Your task to perform on an android device: find which apps use the phone's location Image 0: 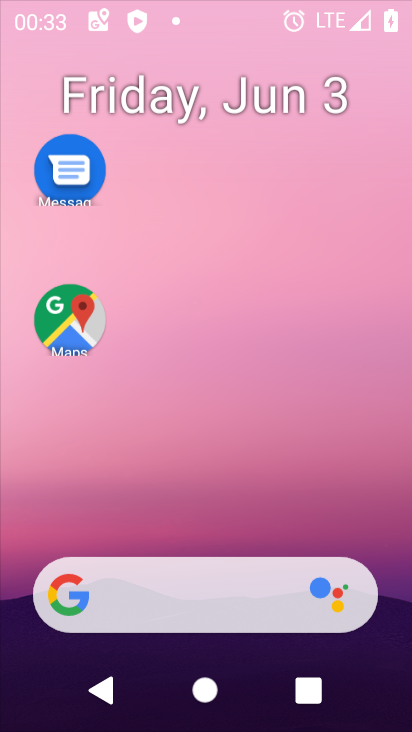
Step 0: press home button
Your task to perform on an android device: find which apps use the phone's location Image 1: 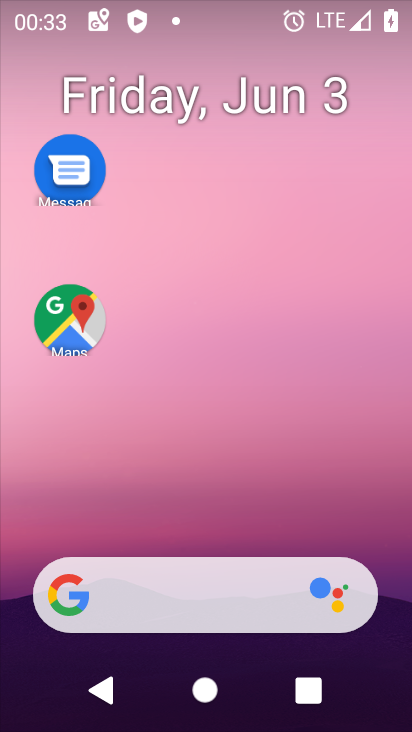
Step 1: drag from (231, 537) to (219, 1)
Your task to perform on an android device: find which apps use the phone's location Image 2: 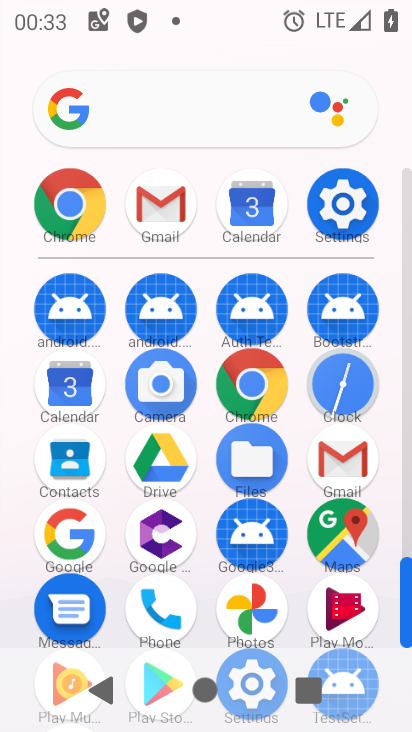
Step 2: click (189, 595)
Your task to perform on an android device: find which apps use the phone's location Image 3: 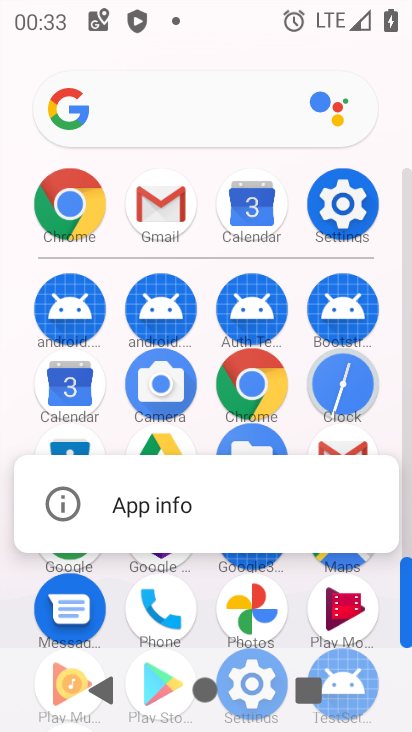
Step 3: click (180, 528)
Your task to perform on an android device: find which apps use the phone's location Image 4: 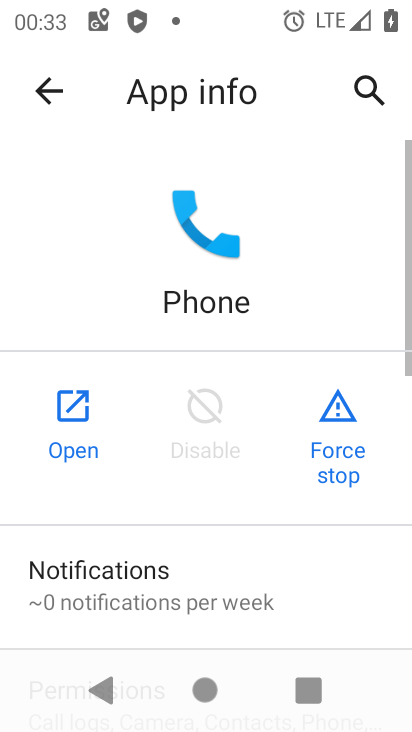
Step 4: drag from (311, 594) to (298, 135)
Your task to perform on an android device: find which apps use the phone's location Image 5: 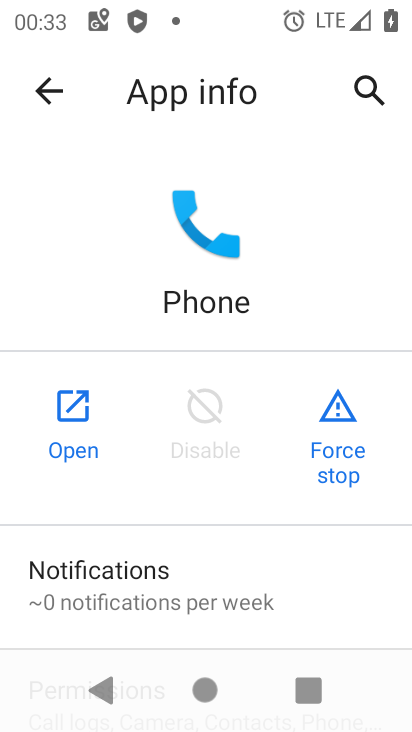
Step 5: drag from (178, 554) to (184, 238)
Your task to perform on an android device: find which apps use the phone's location Image 6: 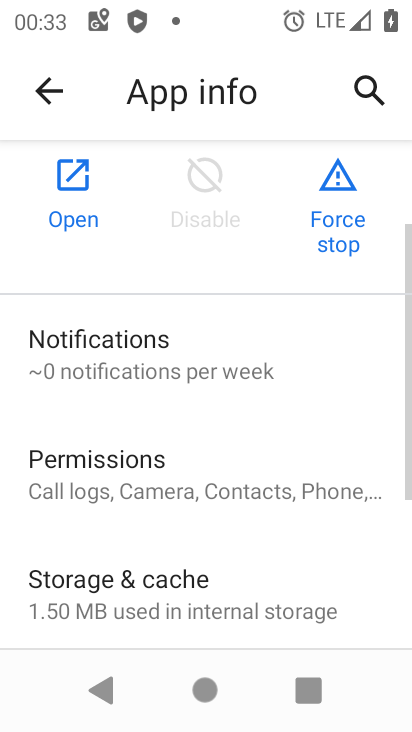
Step 6: click (176, 470)
Your task to perform on an android device: find which apps use the phone's location Image 7: 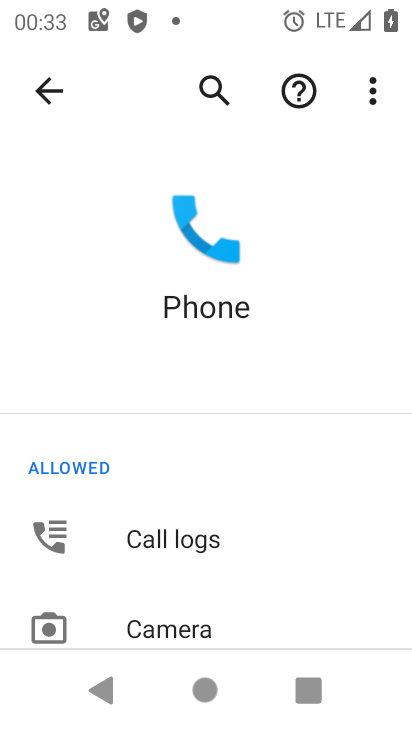
Step 7: click (237, 164)
Your task to perform on an android device: find which apps use the phone's location Image 8: 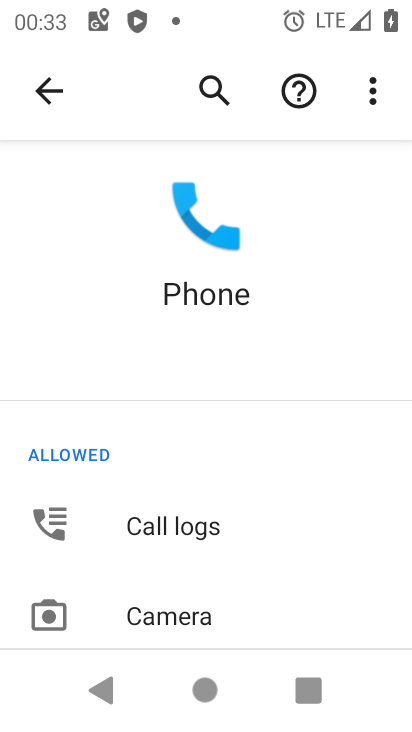
Step 8: drag from (201, 527) to (206, 182)
Your task to perform on an android device: find which apps use the phone's location Image 9: 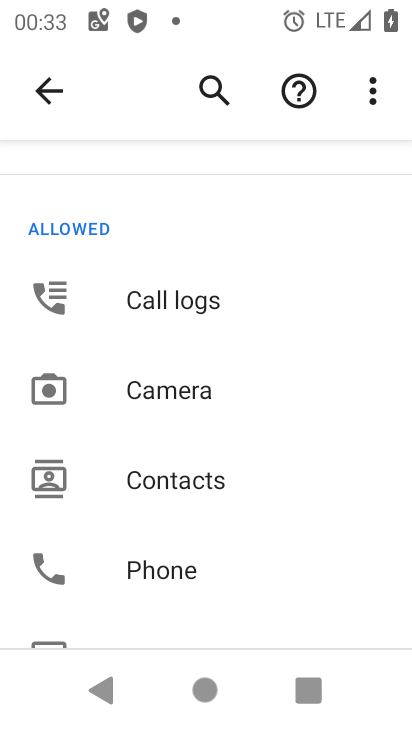
Step 9: drag from (172, 569) to (186, 316)
Your task to perform on an android device: find which apps use the phone's location Image 10: 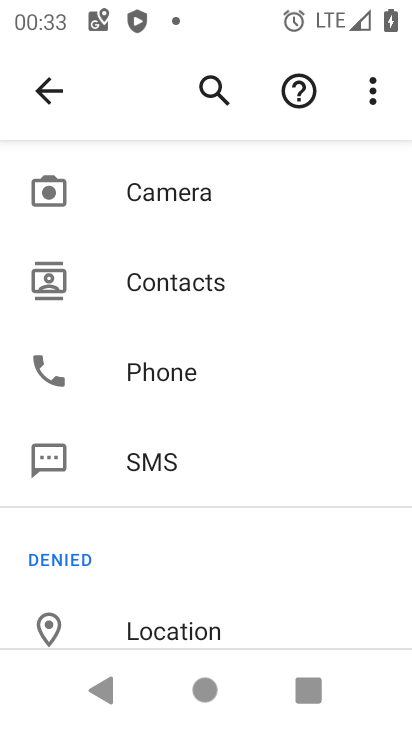
Step 10: drag from (210, 561) to (251, 161)
Your task to perform on an android device: find which apps use the phone's location Image 11: 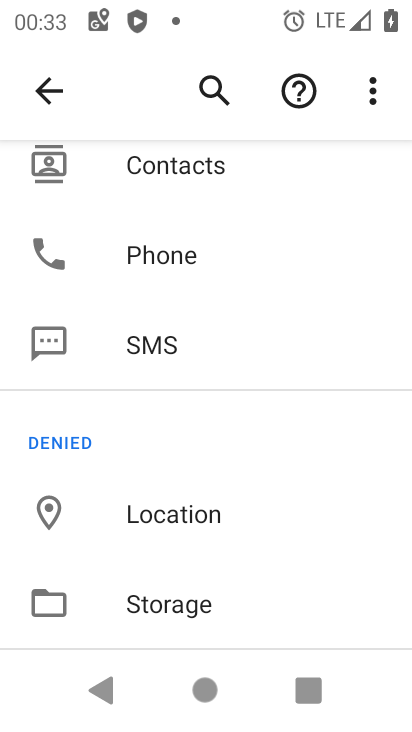
Step 11: drag from (242, 628) to (238, 468)
Your task to perform on an android device: find which apps use the phone's location Image 12: 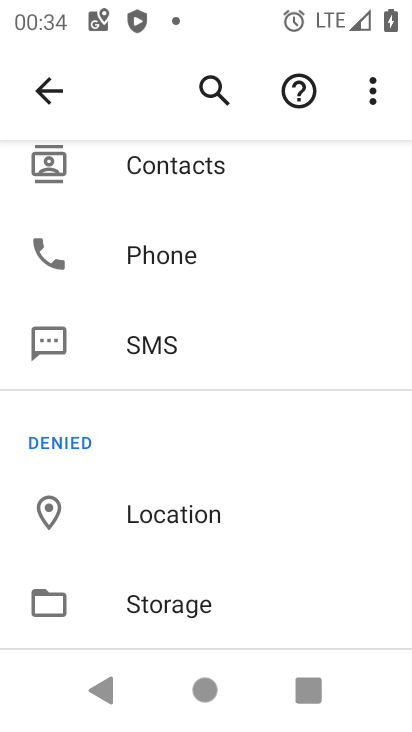
Step 12: click (191, 525)
Your task to perform on an android device: find which apps use the phone's location Image 13: 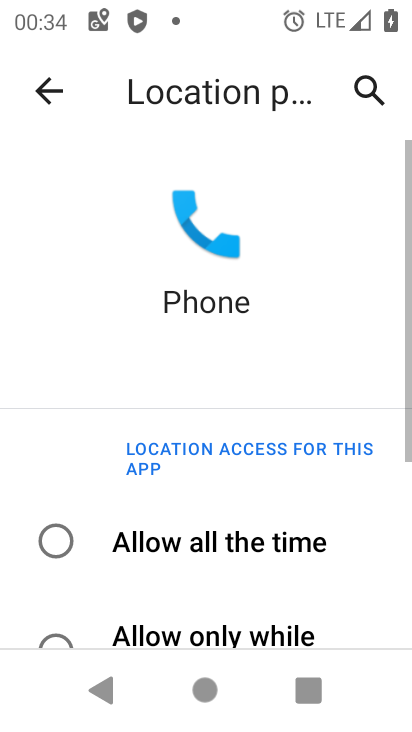
Step 13: drag from (191, 525) to (202, 60)
Your task to perform on an android device: find which apps use the phone's location Image 14: 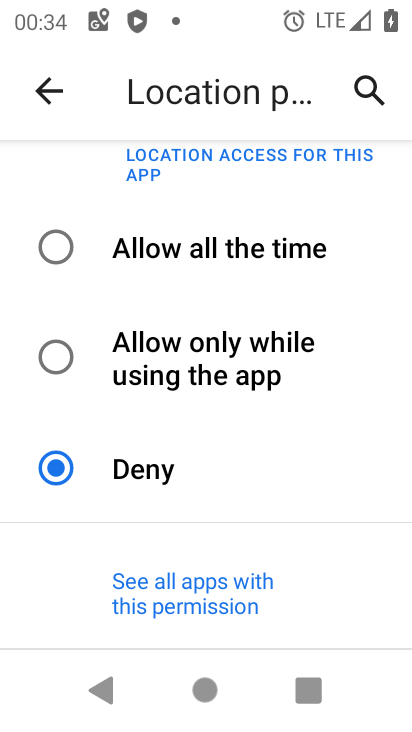
Step 14: click (198, 582)
Your task to perform on an android device: find which apps use the phone's location Image 15: 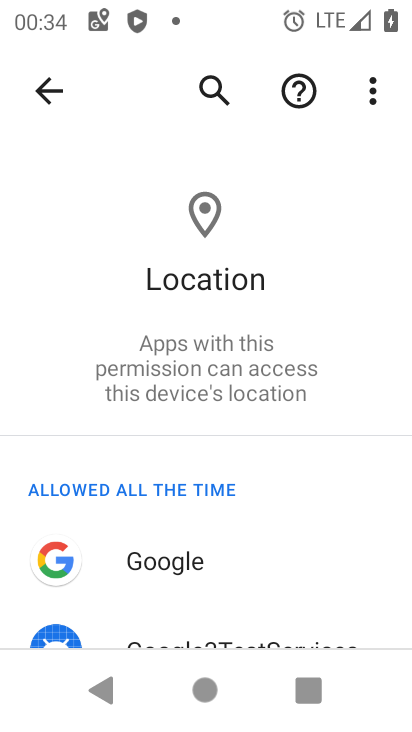
Step 15: task complete